Your task to perform on an android device: open app "Walmart Shopping & Grocery" (install if not already installed) and enter user name: "Hans@icloud.com" and password: "executing" Image 0: 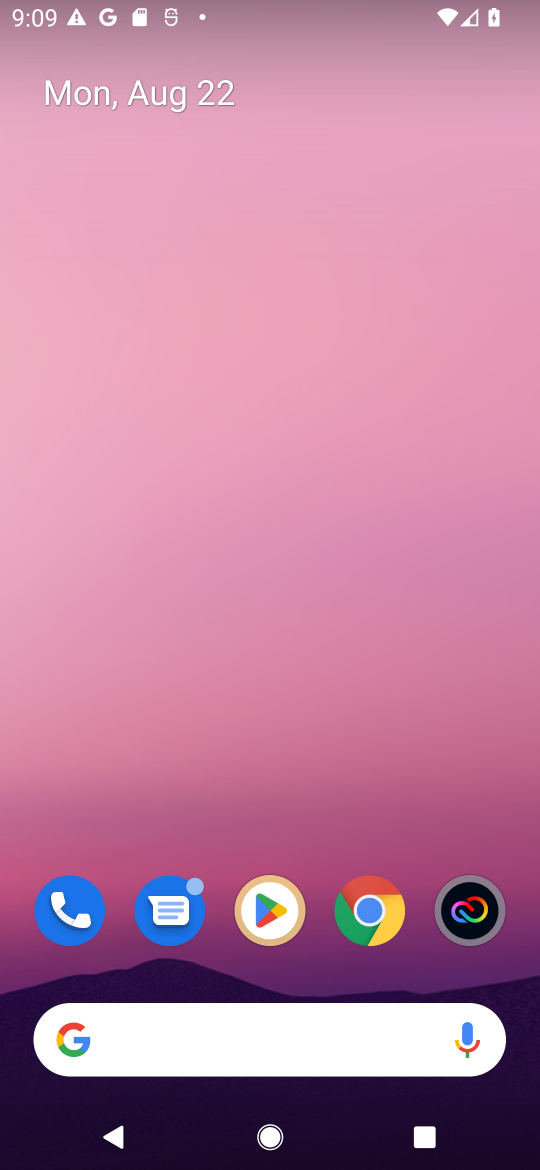
Step 0: click (278, 910)
Your task to perform on an android device: open app "Walmart Shopping & Grocery" (install if not already installed) and enter user name: "Hans@icloud.com" and password: "executing" Image 1: 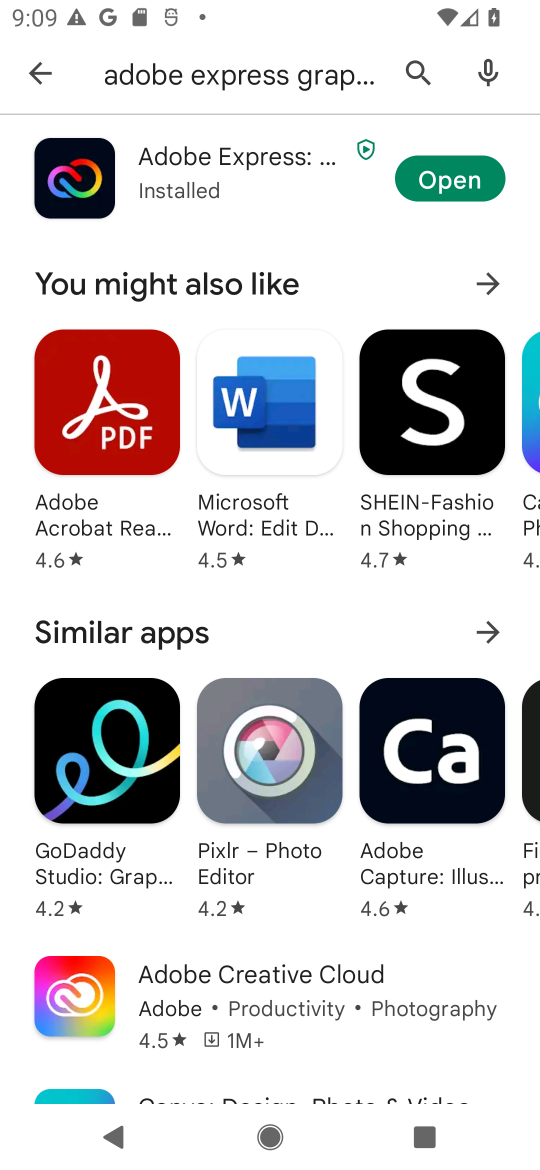
Step 1: click (406, 71)
Your task to perform on an android device: open app "Walmart Shopping & Grocery" (install if not already installed) and enter user name: "Hans@icloud.com" and password: "executing" Image 2: 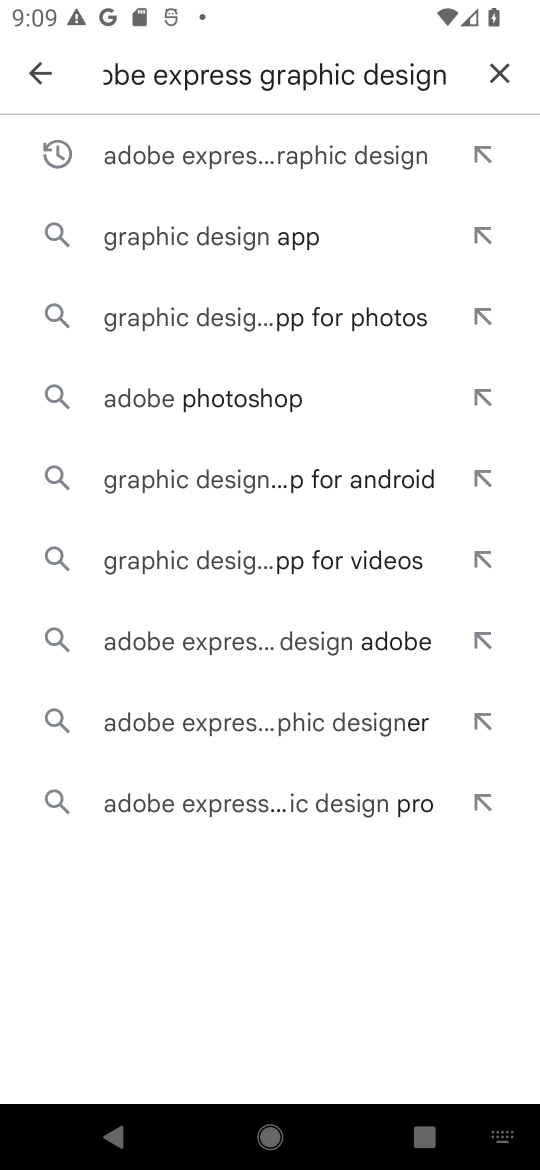
Step 2: click (500, 75)
Your task to perform on an android device: open app "Walmart Shopping & Grocery" (install if not already installed) and enter user name: "Hans@icloud.com" and password: "executing" Image 3: 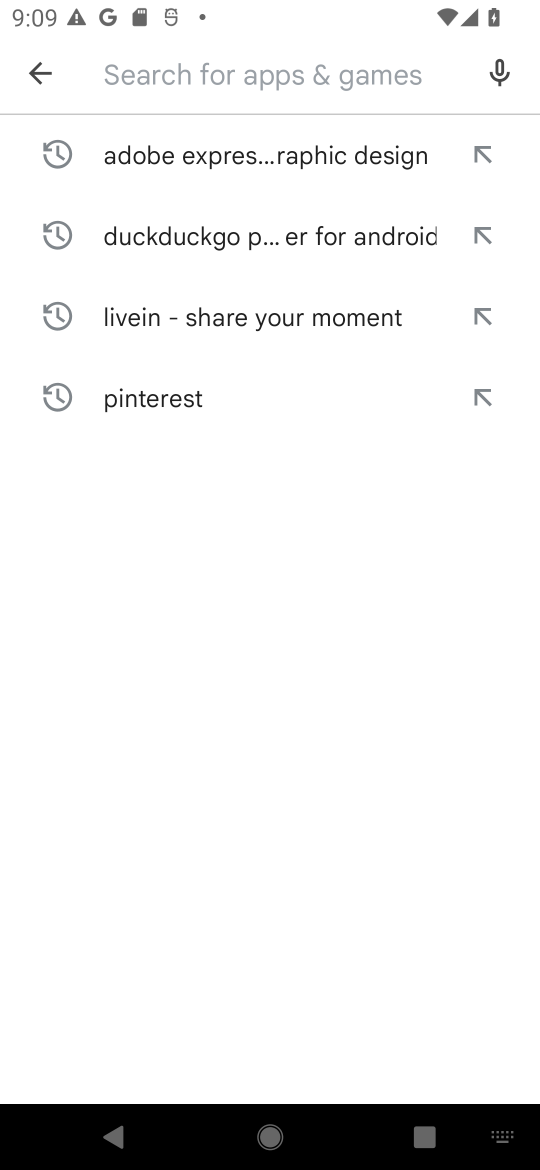
Step 3: type "Walmart Shopping & Grocery"
Your task to perform on an android device: open app "Walmart Shopping & Grocery" (install if not already installed) and enter user name: "Hans@icloud.com" and password: "executing" Image 4: 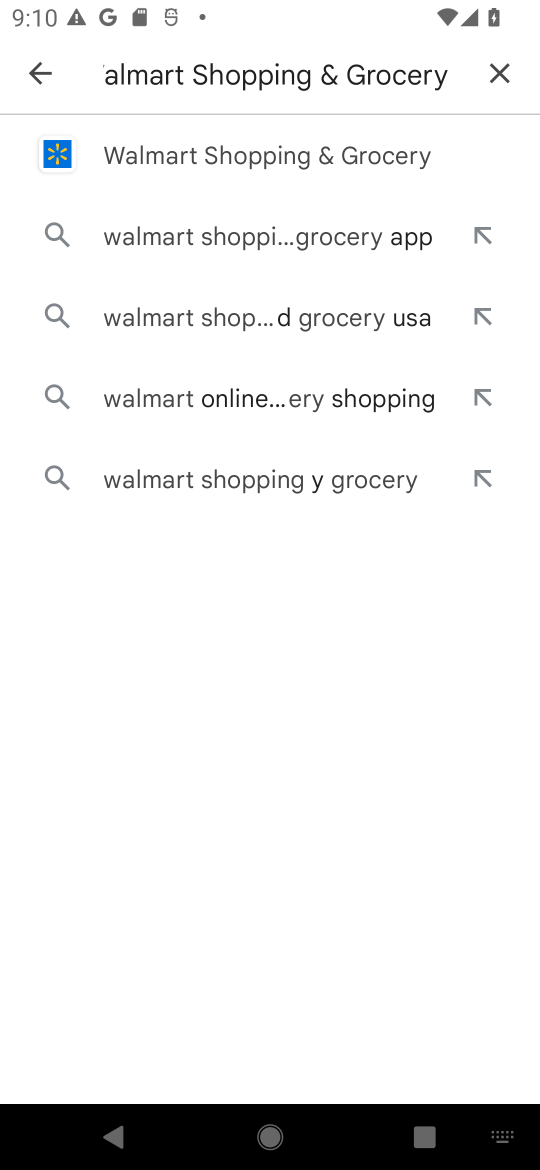
Step 4: click (170, 148)
Your task to perform on an android device: open app "Walmart Shopping & Grocery" (install if not already installed) and enter user name: "Hans@icloud.com" and password: "executing" Image 5: 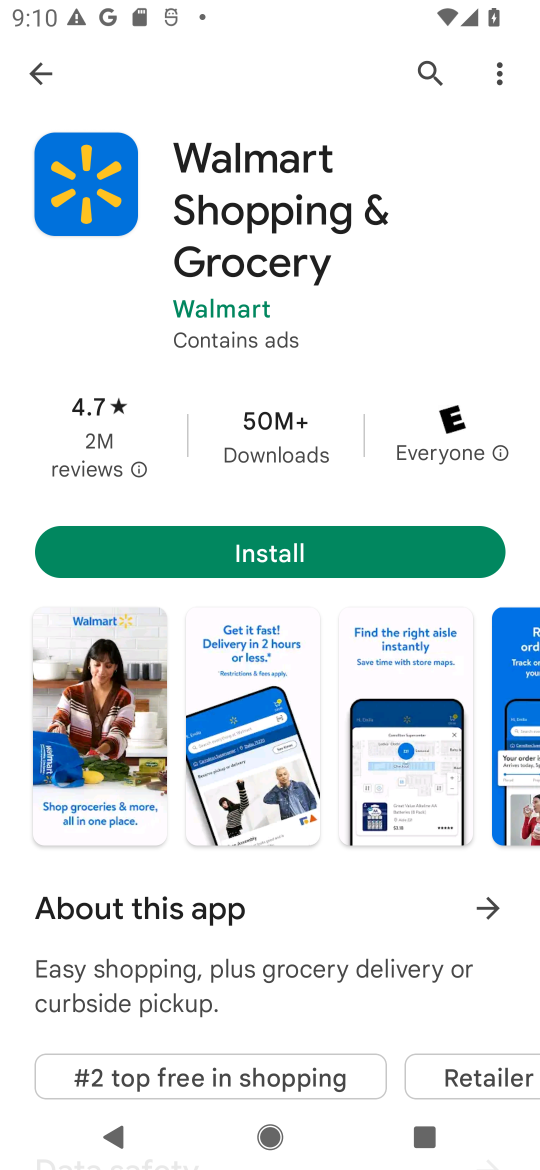
Step 5: click (305, 556)
Your task to perform on an android device: open app "Walmart Shopping & Grocery" (install if not already installed) and enter user name: "Hans@icloud.com" and password: "executing" Image 6: 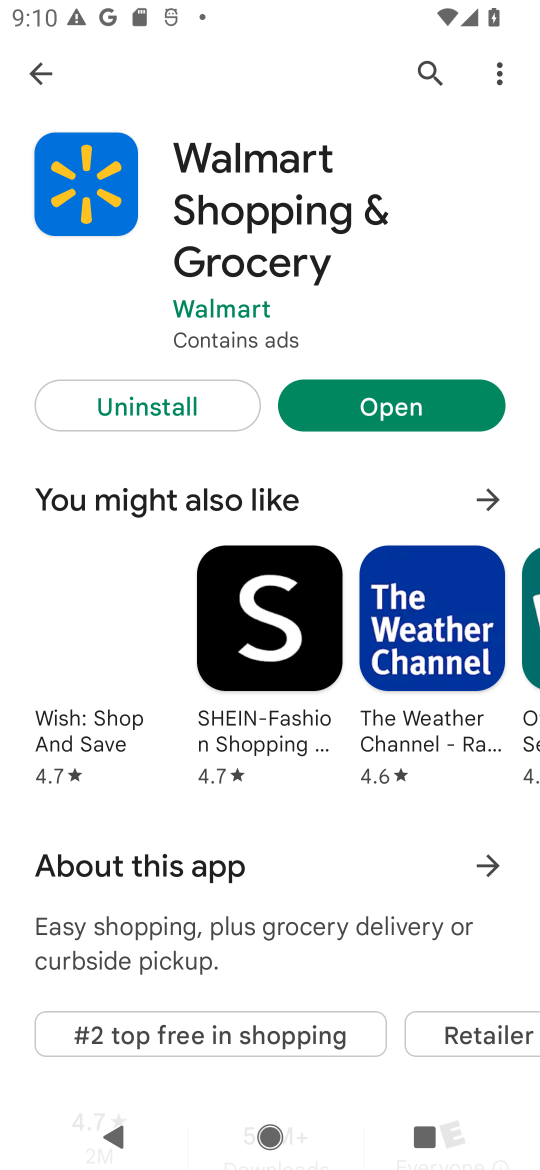
Step 6: click (401, 403)
Your task to perform on an android device: open app "Walmart Shopping & Grocery" (install if not already installed) and enter user name: "Hans@icloud.com" and password: "executing" Image 7: 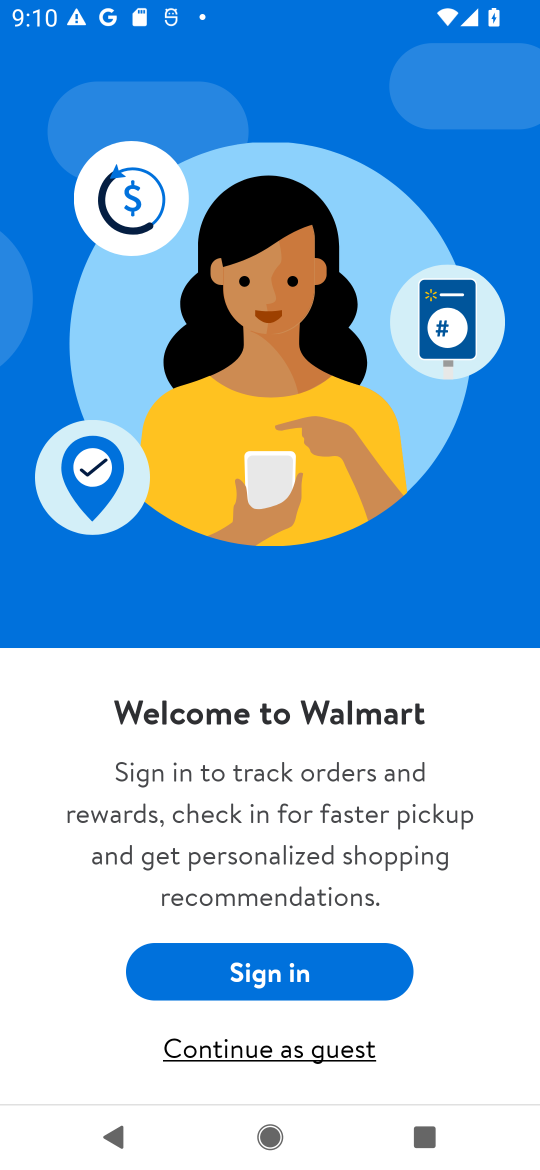
Step 7: task complete